Your task to perform on an android device: toggle pop-ups in chrome Image 0: 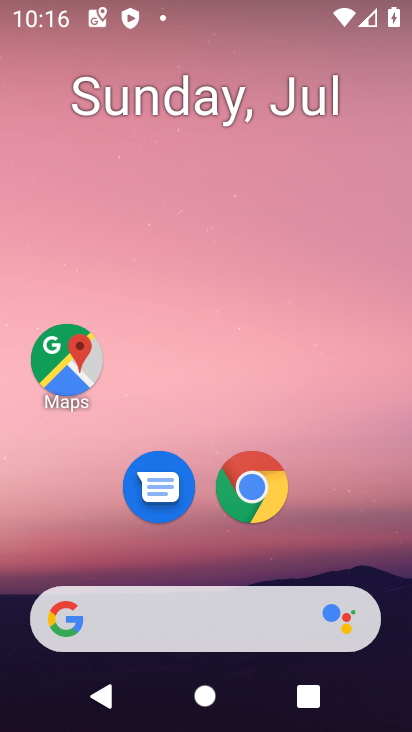
Step 0: click (261, 481)
Your task to perform on an android device: toggle pop-ups in chrome Image 1: 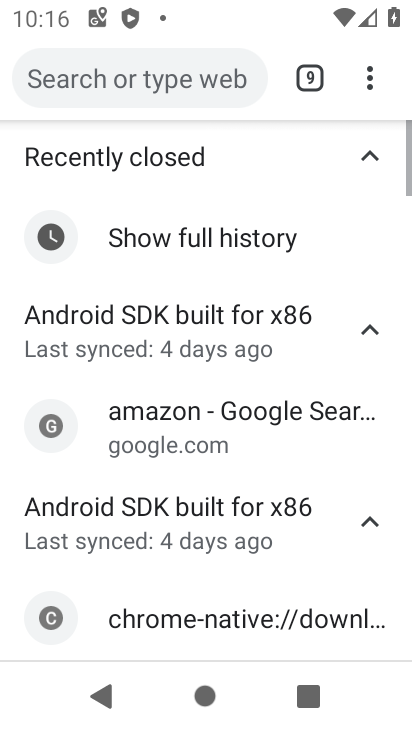
Step 1: drag from (368, 77) to (198, 534)
Your task to perform on an android device: toggle pop-ups in chrome Image 2: 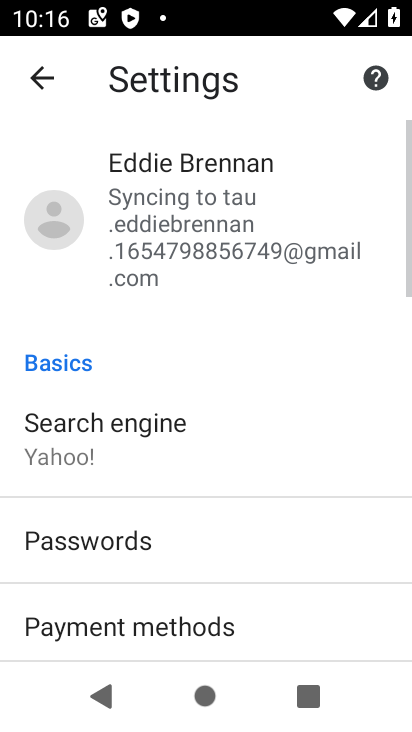
Step 2: drag from (165, 605) to (232, 137)
Your task to perform on an android device: toggle pop-ups in chrome Image 3: 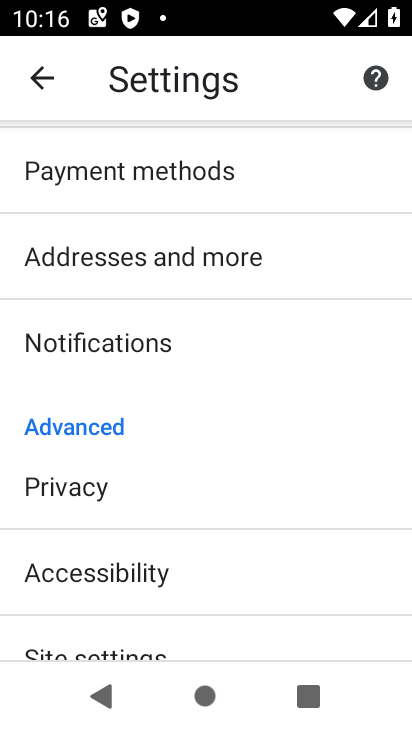
Step 3: drag from (141, 621) to (223, 130)
Your task to perform on an android device: toggle pop-ups in chrome Image 4: 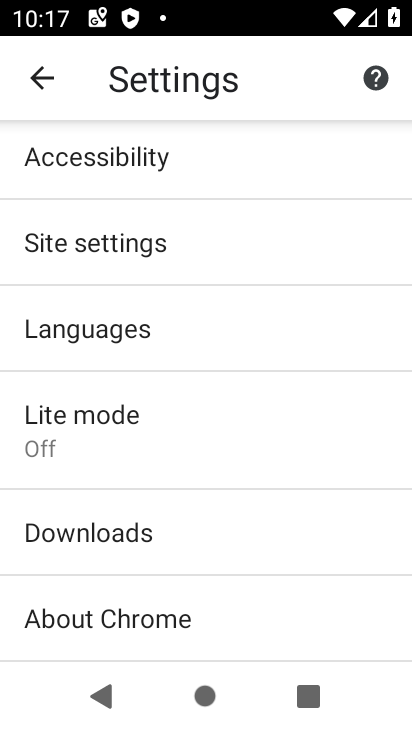
Step 4: click (105, 246)
Your task to perform on an android device: toggle pop-ups in chrome Image 5: 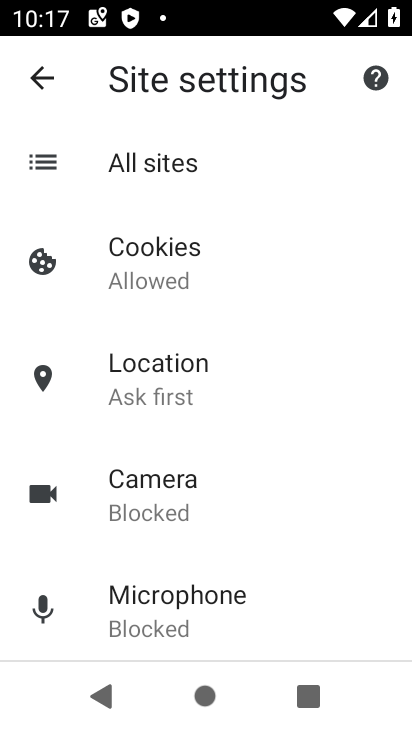
Step 5: drag from (139, 604) to (208, 160)
Your task to perform on an android device: toggle pop-ups in chrome Image 6: 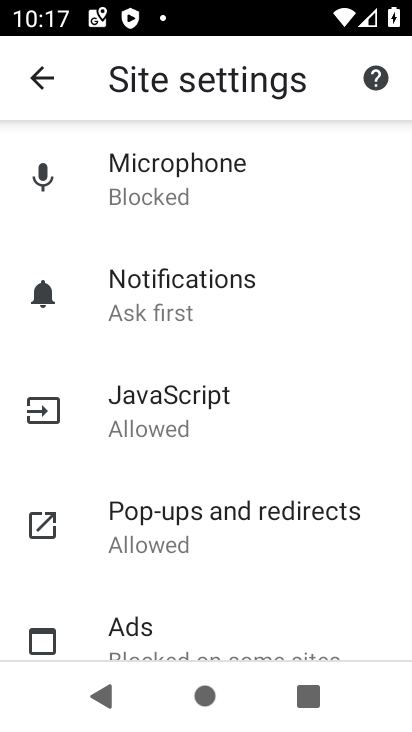
Step 6: click (161, 529)
Your task to perform on an android device: toggle pop-ups in chrome Image 7: 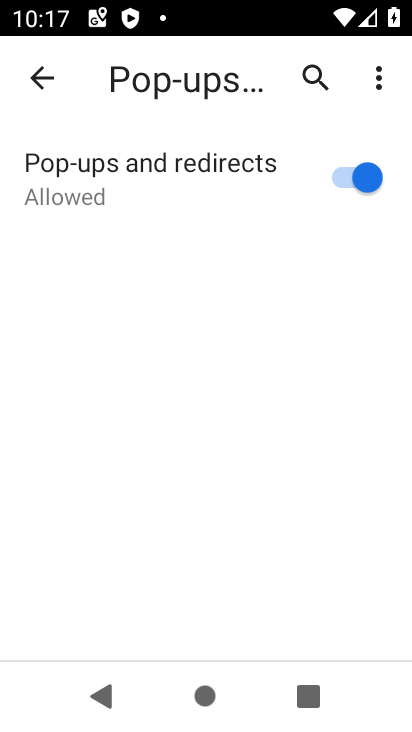
Step 7: click (357, 176)
Your task to perform on an android device: toggle pop-ups in chrome Image 8: 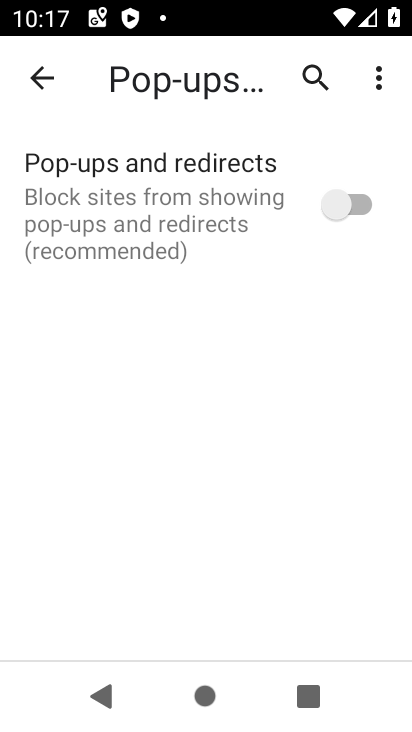
Step 8: task complete